Your task to perform on an android device: move a message to another label in the gmail app Image 0: 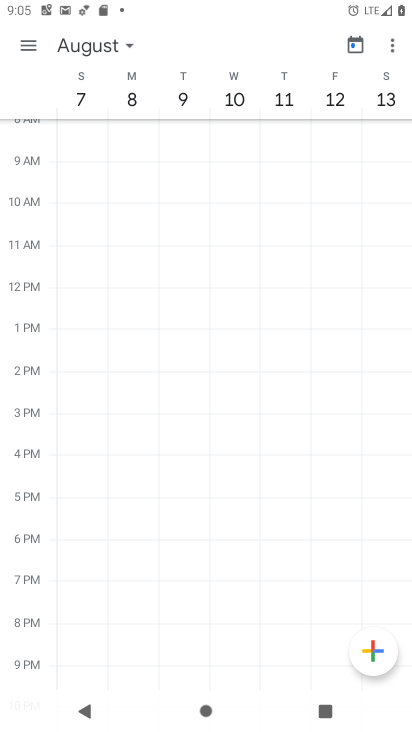
Step 0: press home button
Your task to perform on an android device: move a message to another label in the gmail app Image 1: 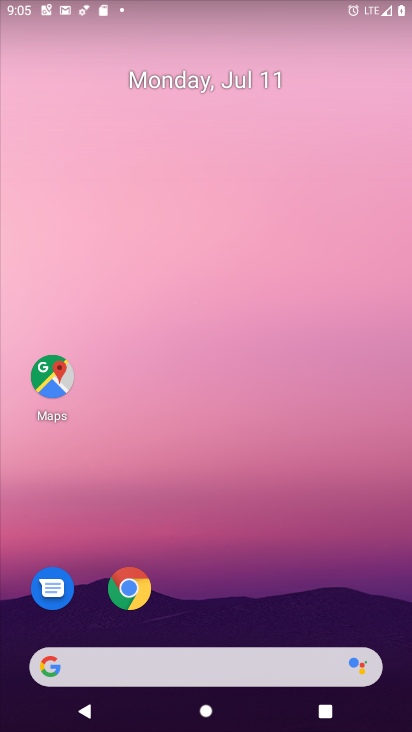
Step 1: drag from (187, 643) to (337, 7)
Your task to perform on an android device: move a message to another label in the gmail app Image 2: 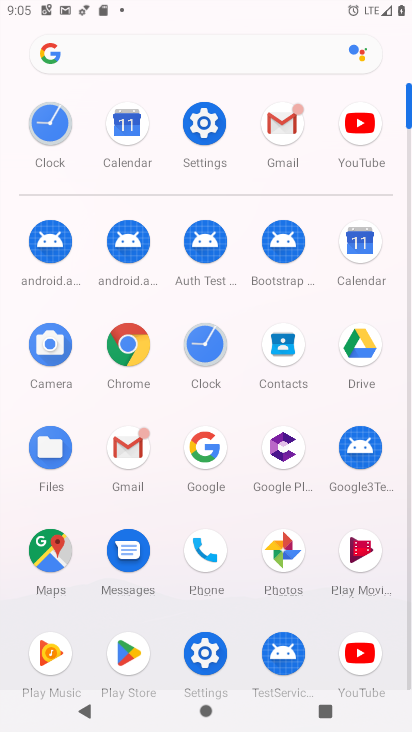
Step 2: click (281, 128)
Your task to perform on an android device: move a message to another label in the gmail app Image 3: 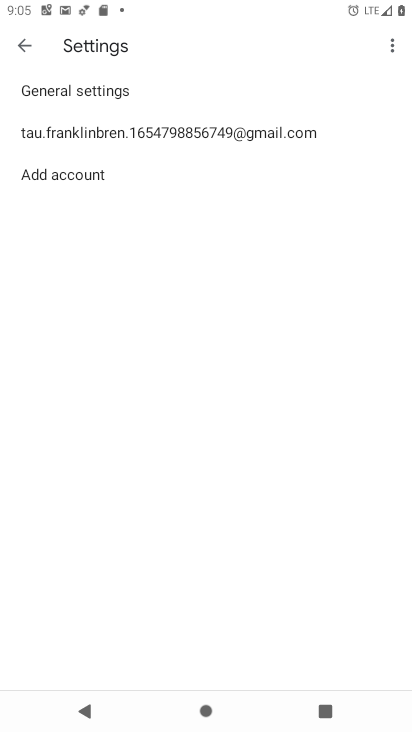
Step 3: click (25, 43)
Your task to perform on an android device: move a message to another label in the gmail app Image 4: 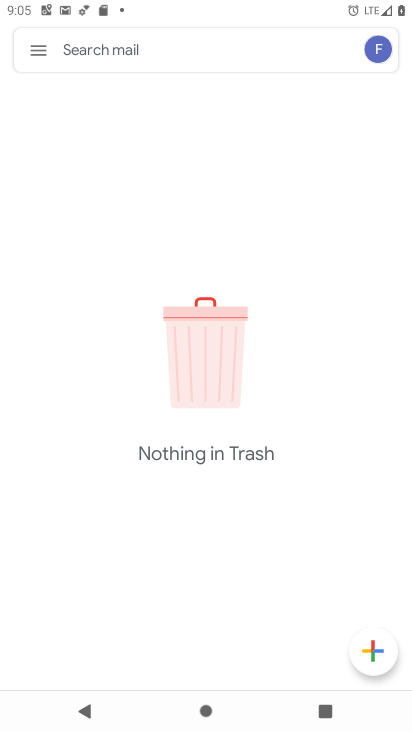
Step 4: click (38, 40)
Your task to perform on an android device: move a message to another label in the gmail app Image 5: 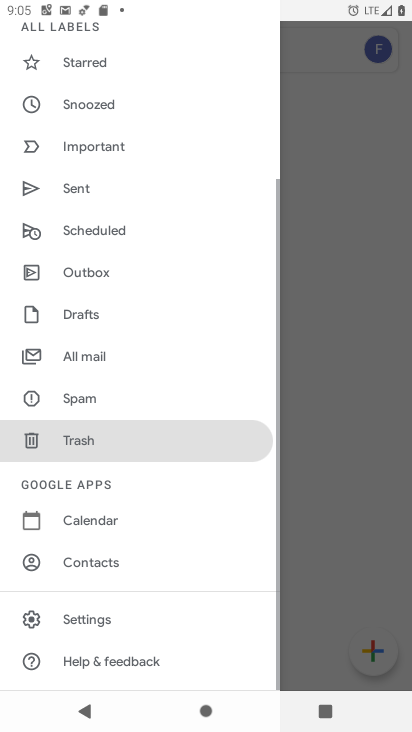
Step 5: drag from (197, 85) to (137, 574)
Your task to perform on an android device: move a message to another label in the gmail app Image 6: 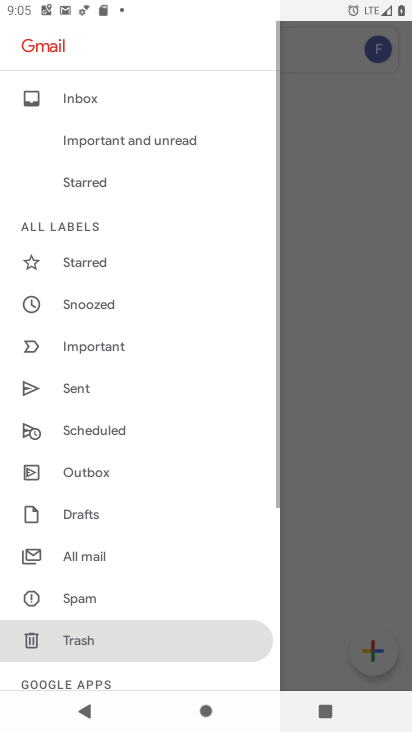
Step 6: click (88, 88)
Your task to perform on an android device: move a message to another label in the gmail app Image 7: 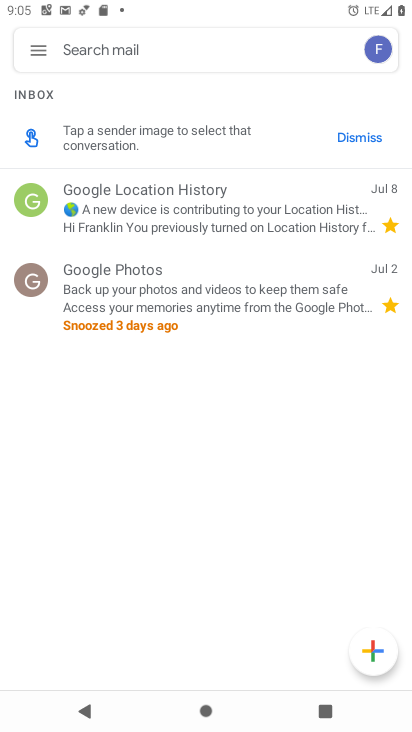
Step 7: click (32, 192)
Your task to perform on an android device: move a message to another label in the gmail app Image 8: 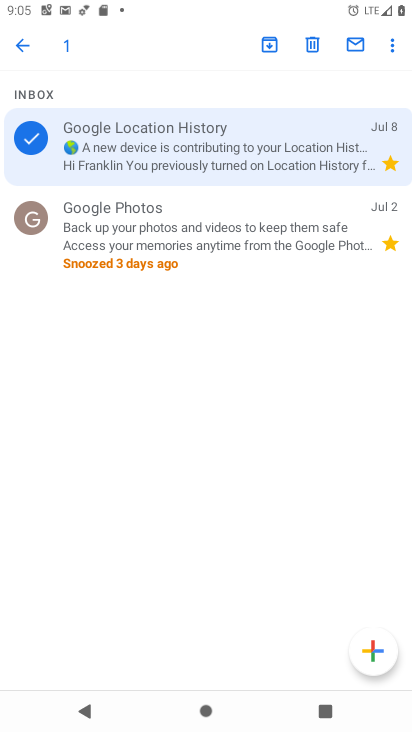
Step 8: click (393, 41)
Your task to perform on an android device: move a message to another label in the gmail app Image 9: 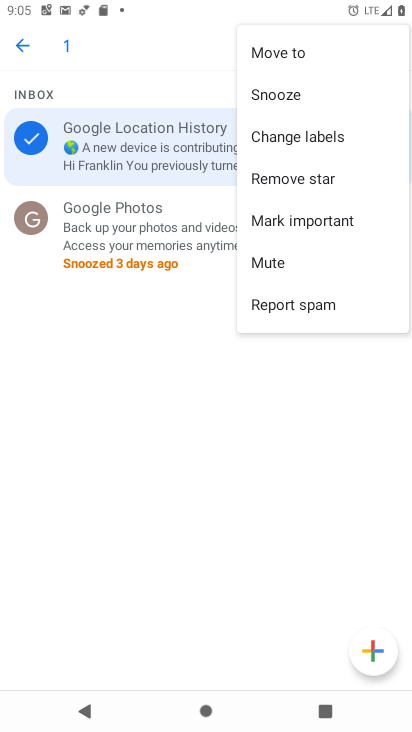
Step 9: click (324, 140)
Your task to perform on an android device: move a message to another label in the gmail app Image 10: 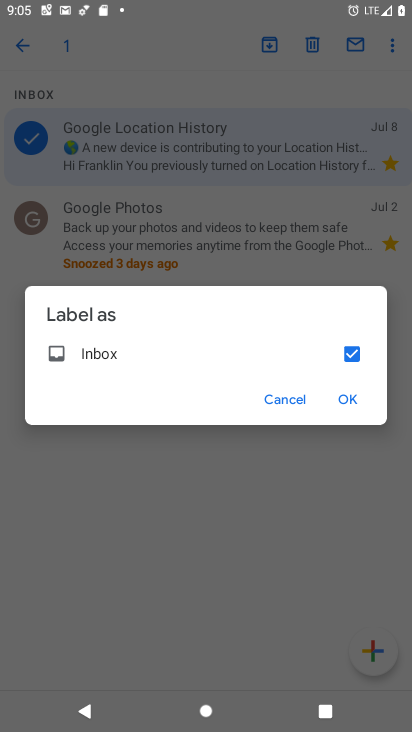
Step 10: click (356, 350)
Your task to perform on an android device: move a message to another label in the gmail app Image 11: 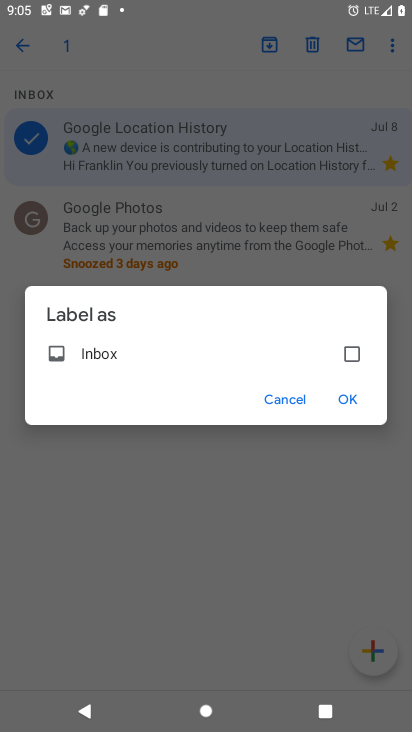
Step 11: click (342, 403)
Your task to perform on an android device: move a message to another label in the gmail app Image 12: 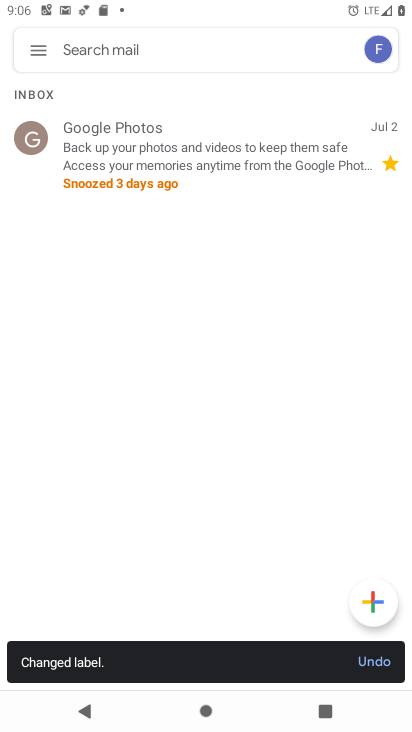
Step 12: task complete